Your task to perform on an android device: Open Google Maps Image 0: 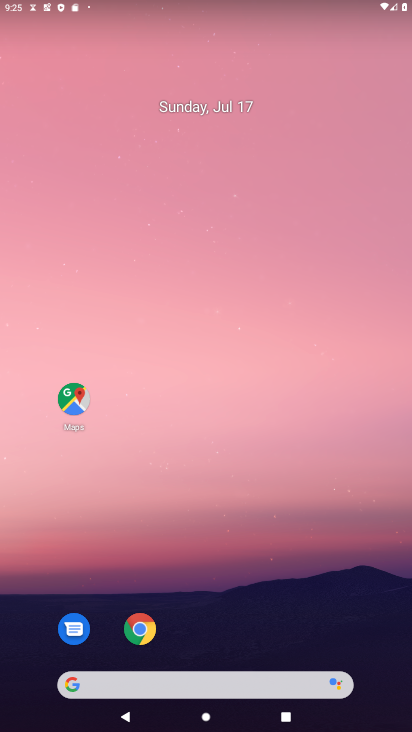
Step 0: drag from (232, 704) to (312, 143)
Your task to perform on an android device: Open Google Maps Image 1: 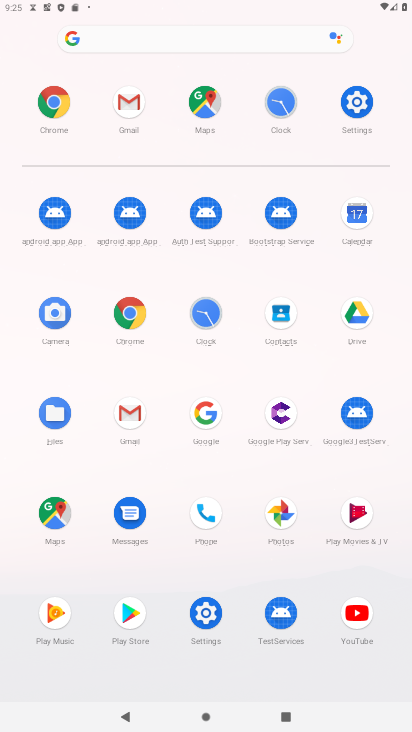
Step 1: click (56, 510)
Your task to perform on an android device: Open Google Maps Image 2: 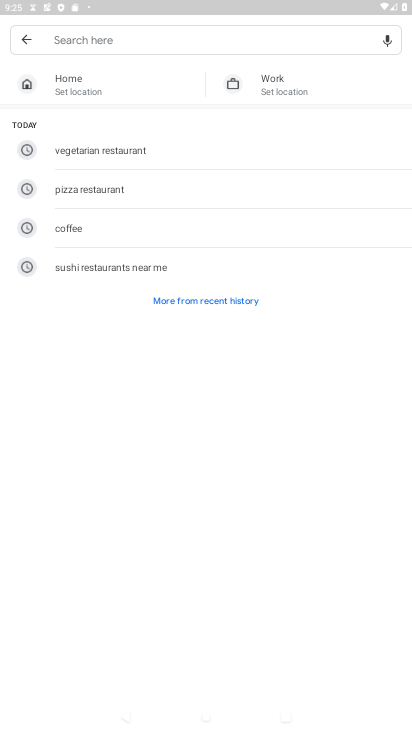
Step 2: task complete